Your task to perform on an android device: Open the phone app and click the voicemail tab. Image 0: 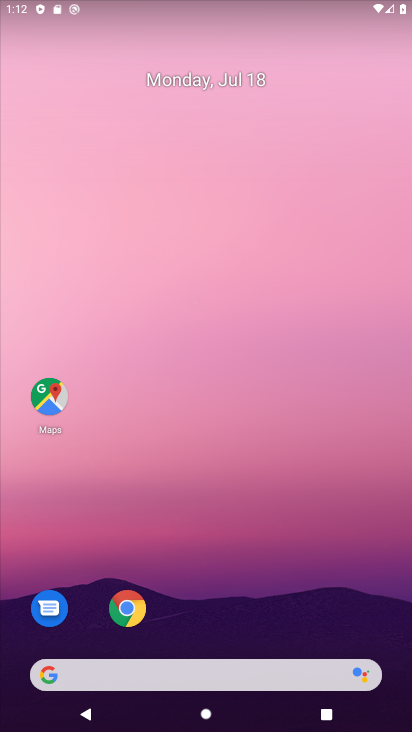
Step 0: drag from (234, 676) to (229, 266)
Your task to perform on an android device: Open the phone app and click the voicemail tab. Image 1: 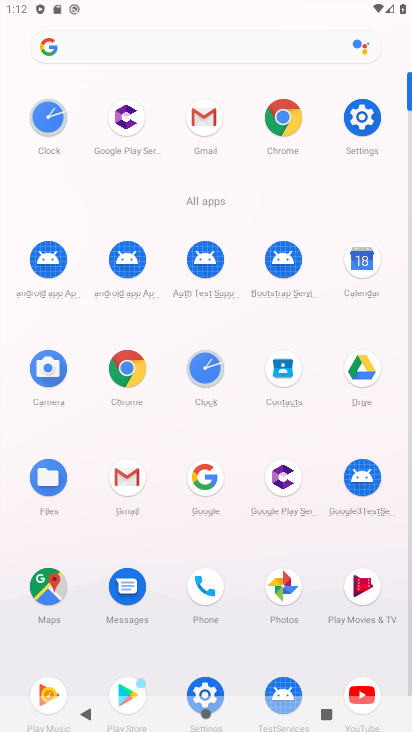
Step 1: click (203, 586)
Your task to perform on an android device: Open the phone app and click the voicemail tab. Image 2: 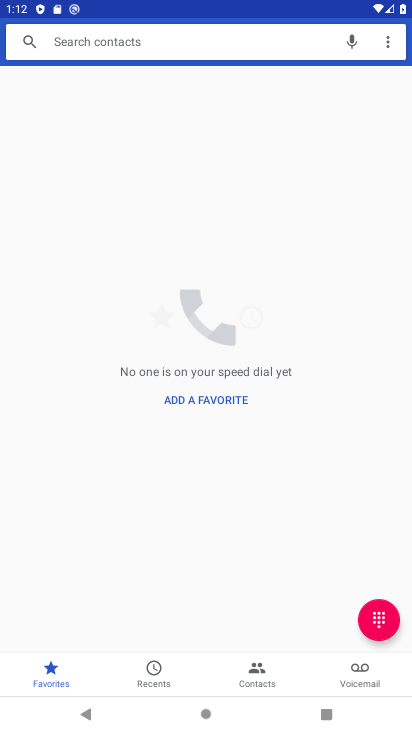
Step 2: click (360, 672)
Your task to perform on an android device: Open the phone app and click the voicemail tab. Image 3: 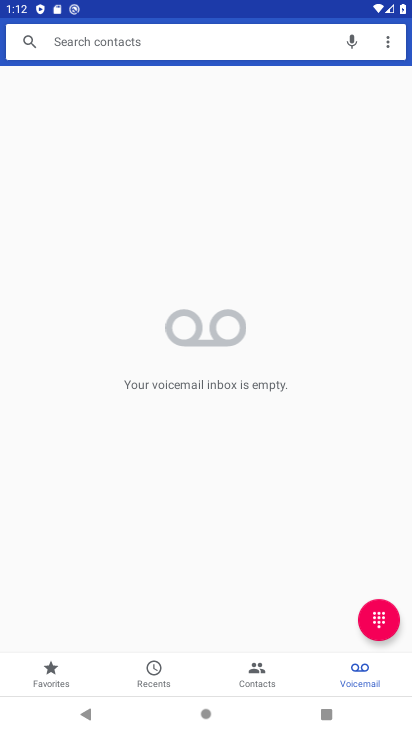
Step 3: task complete